Your task to perform on an android device: turn off smart reply in the gmail app Image 0: 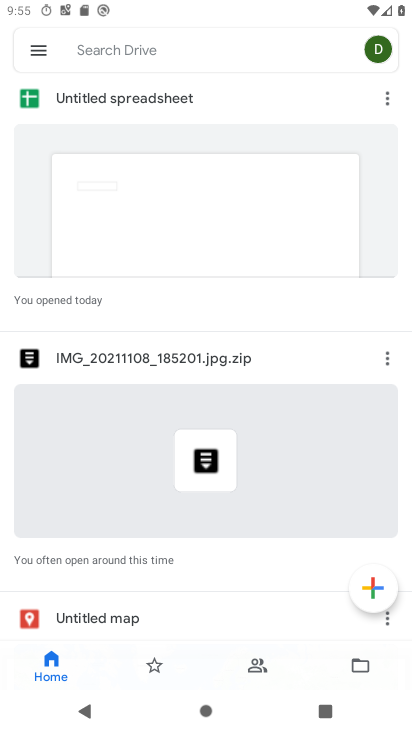
Step 0: press home button
Your task to perform on an android device: turn off smart reply in the gmail app Image 1: 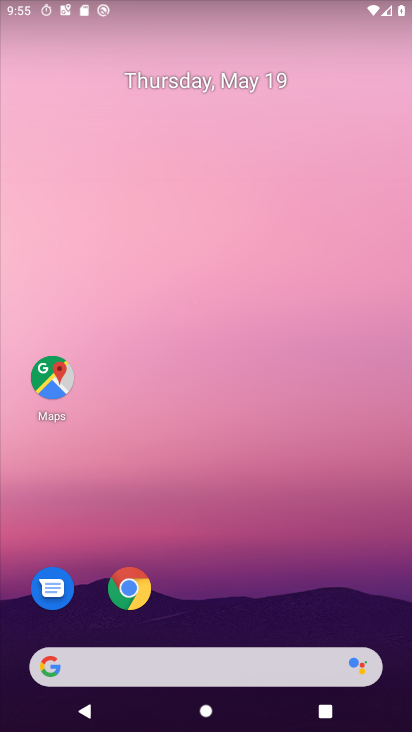
Step 1: drag from (152, 671) to (272, 218)
Your task to perform on an android device: turn off smart reply in the gmail app Image 2: 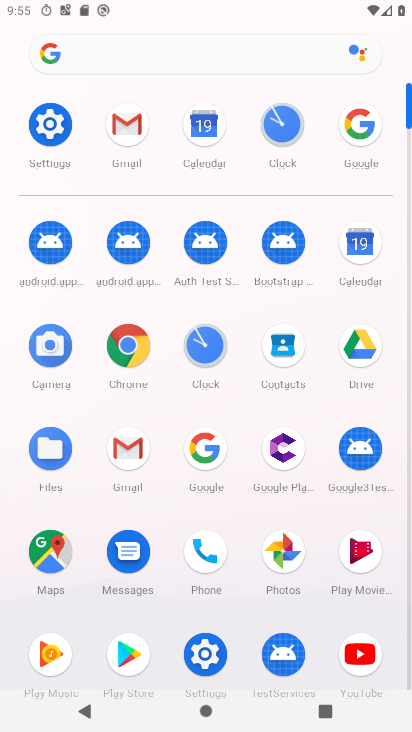
Step 2: click (128, 131)
Your task to perform on an android device: turn off smart reply in the gmail app Image 3: 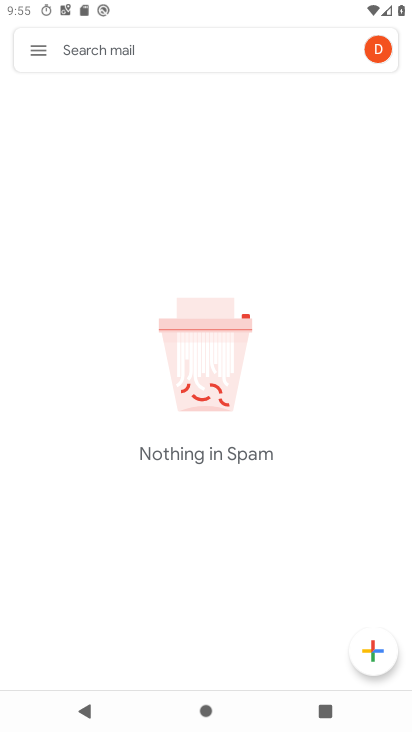
Step 3: click (39, 50)
Your task to perform on an android device: turn off smart reply in the gmail app Image 4: 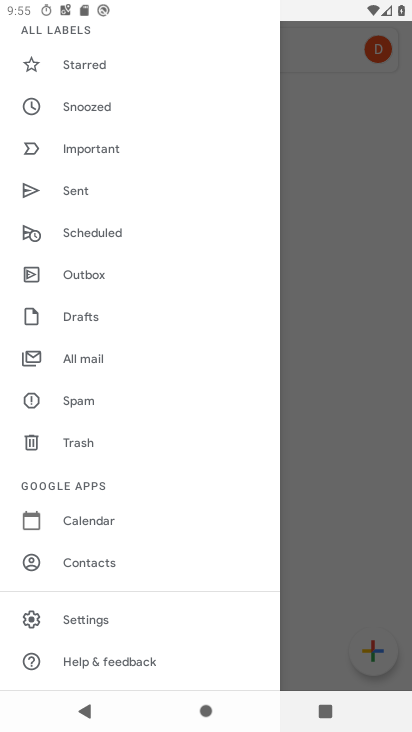
Step 4: click (96, 621)
Your task to perform on an android device: turn off smart reply in the gmail app Image 5: 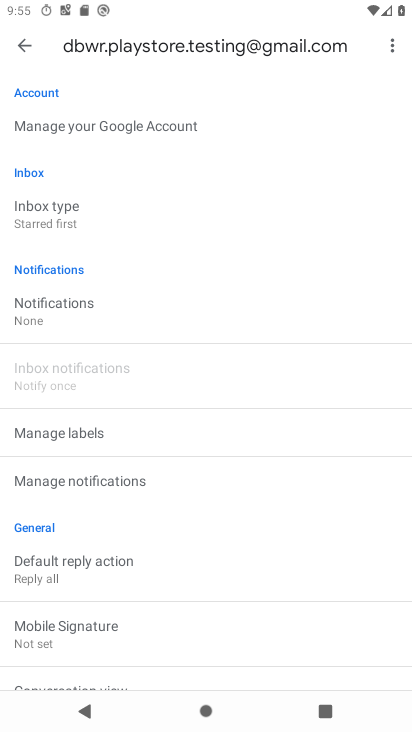
Step 5: drag from (192, 575) to (252, 115)
Your task to perform on an android device: turn off smart reply in the gmail app Image 6: 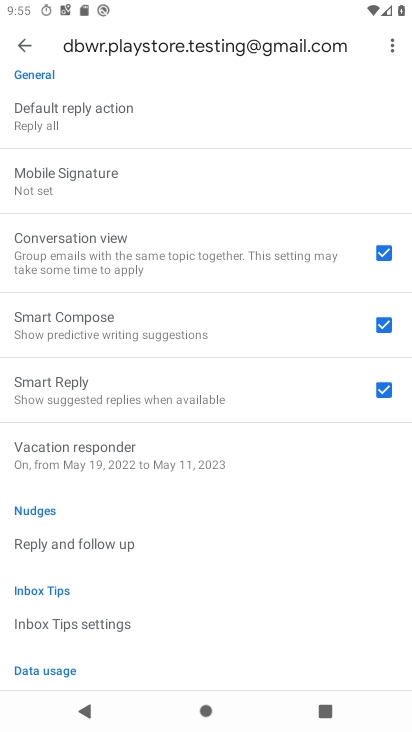
Step 6: click (385, 392)
Your task to perform on an android device: turn off smart reply in the gmail app Image 7: 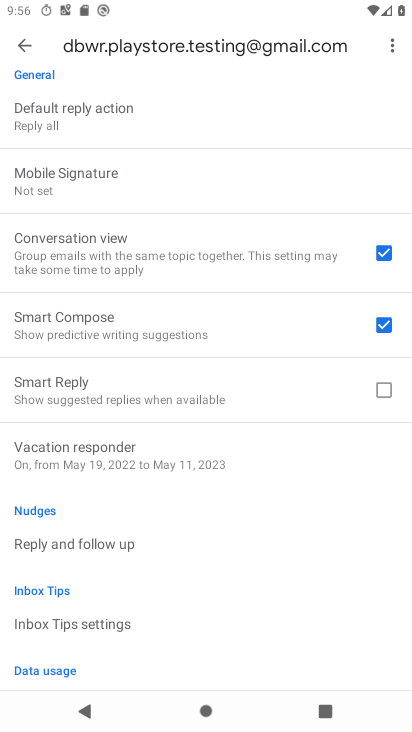
Step 7: task complete